Your task to perform on an android device: Open maps Image 0: 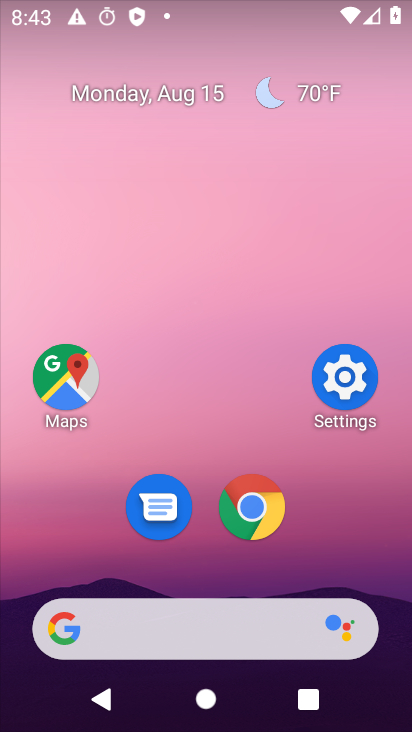
Step 0: click (64, 386)
Your task to perform on an android device: Open maps Image 1: 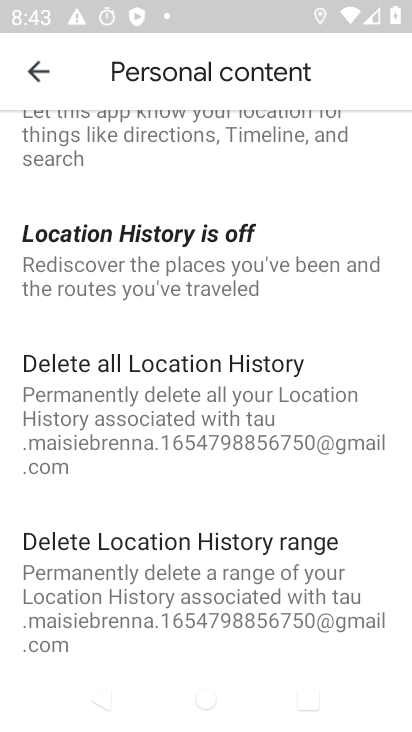
Step 1: click (45, 64)
Your task to perform on an android device: Open maps Image 2: 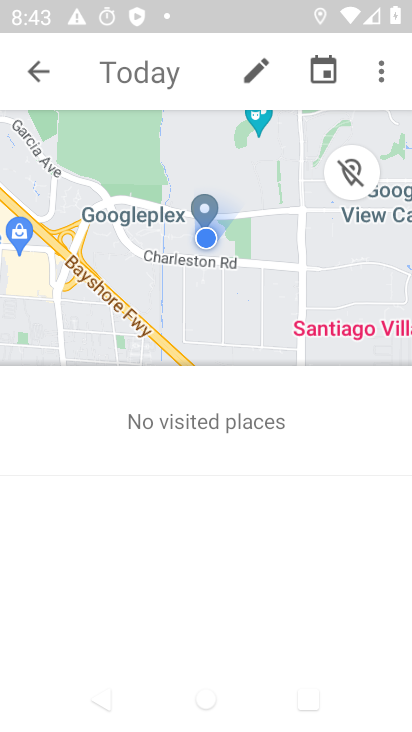
Step 2: click (34, 73)
Your task to perform on an android device: Open maps Image 3: 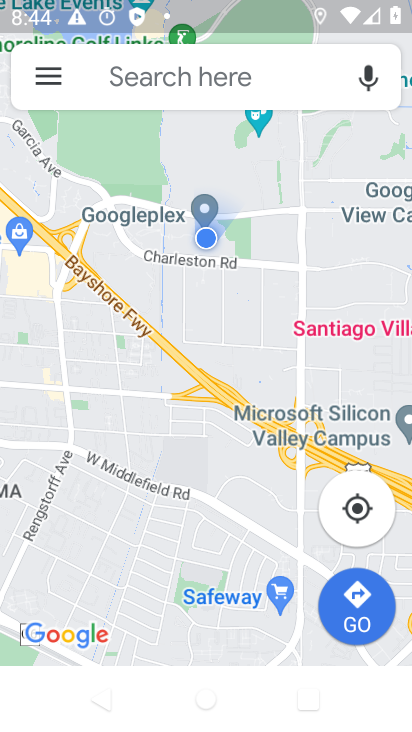
Step 3: task complete